Your task to perform on an android device: find snoozed emails in the gmail app Image 0: 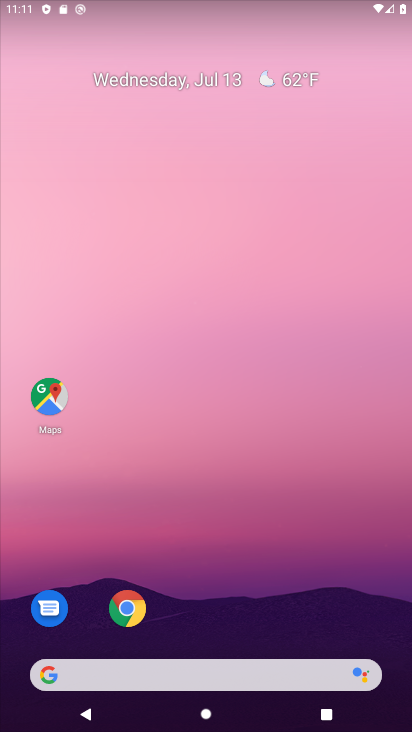
Step 0: drag from (245, 725) to (238, 42)
Your task to perform on an android device: find snoozed emails in the gmail app Image 1: 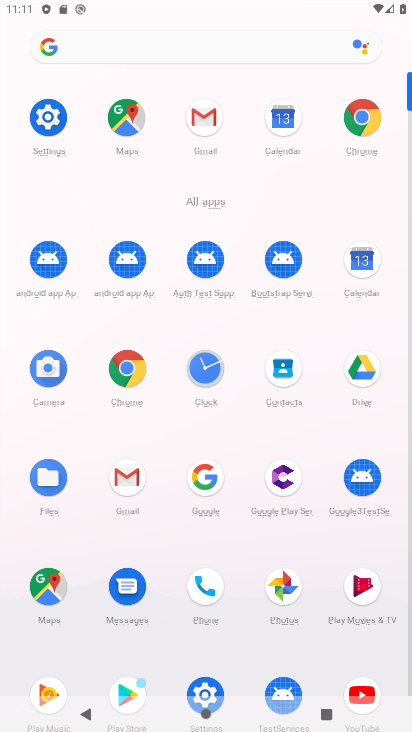
Step 1: click (129, 478)
Your task to perform on an android device: find snoozed emails in the gmail app Image 2: 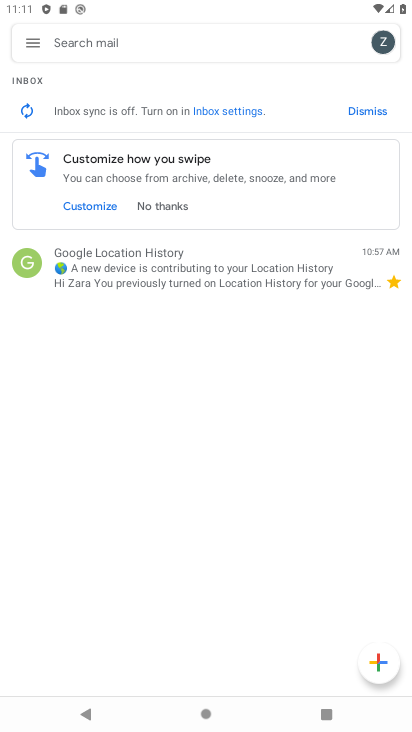
Step 2: click (29, 48)
Your task to perform on an android device: find snoozed emails in the gmail app Image 3: 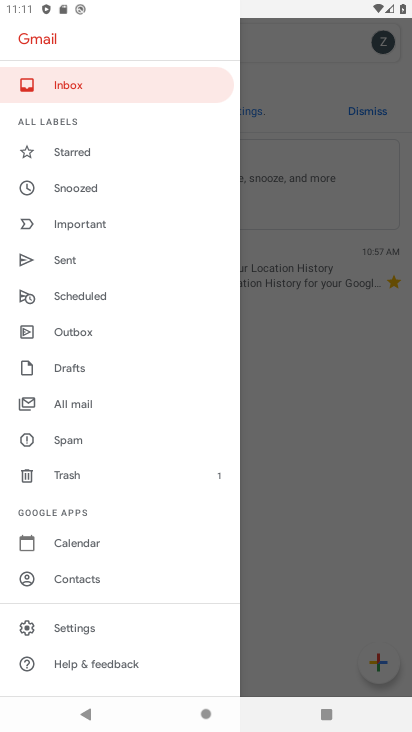
Step 3: click (76, 185)
Your task to perform on an android device: find snoozed emails in the gmail app Image 4: 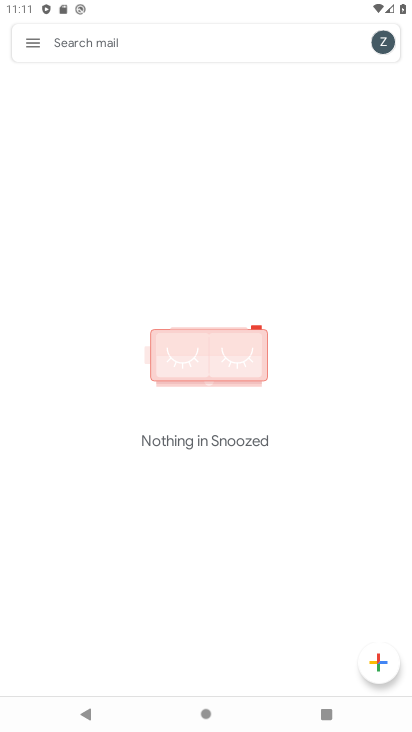
Step 4: task complete